Your task to perform on an android device: turn notification dots on Image 0: 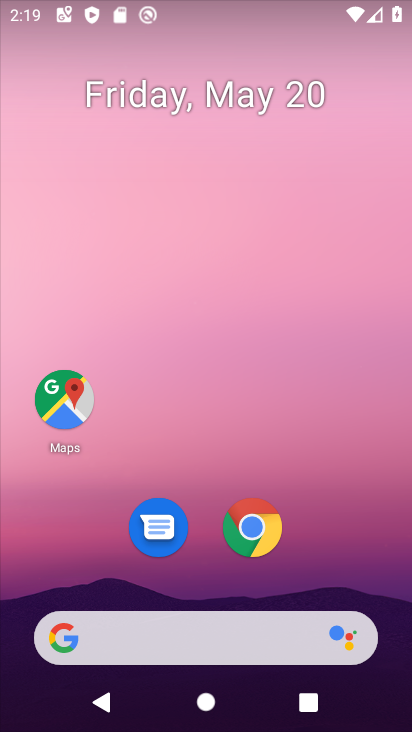
Step 0: drag from (264, 626) to (275, 200)
Your task to perform on an android device: turn notification dots on Image 1: 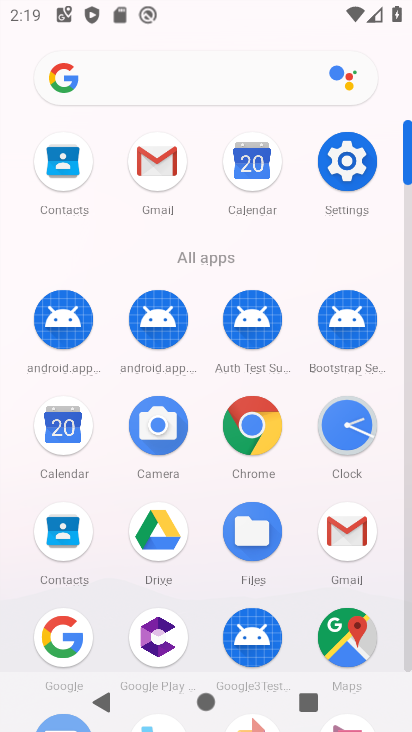
Step 1: click (332, 157)
Your task to perform on an android device: turn notification dots on Image 2: 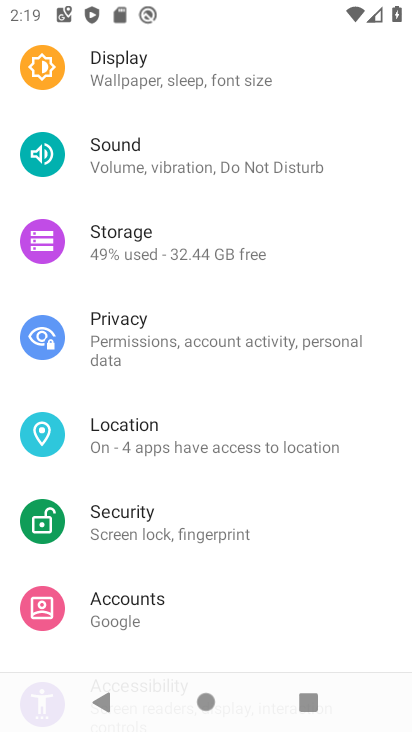
Step 2: drag from (294, 111) to (248, 453)
Your task to perform on an android device: turn notification dots on Image 3: 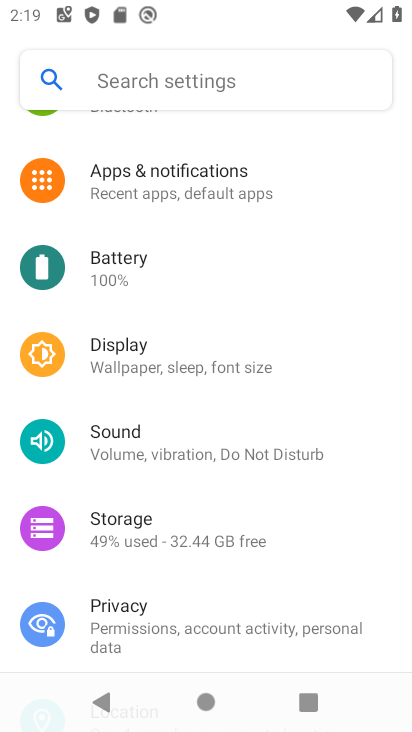
Step 3: click (244, 178)
Your task to perform on an android device: turn notification dots on Image 4: 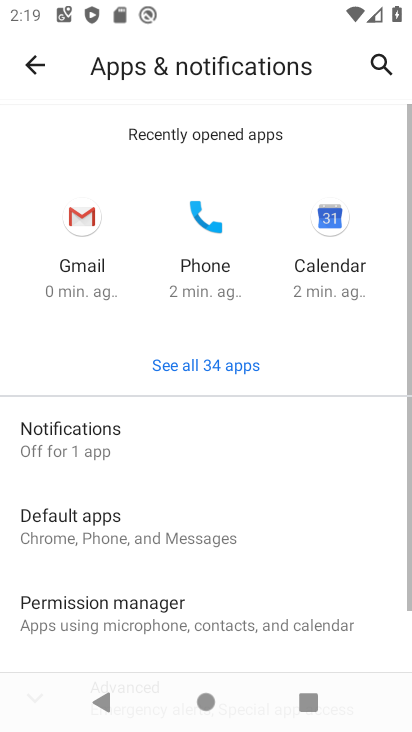
Step 4: drag from (306, 574) to (238, 180)
Your task to perform on an android device: turn notification dots on Image 5: 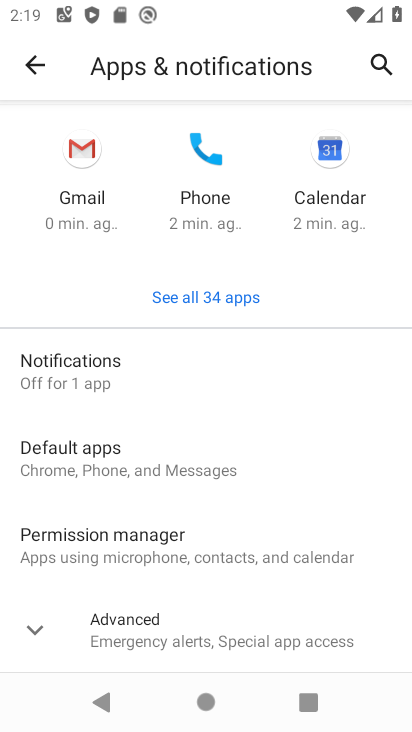
Step 5: click (150, 372)
Your task to perform on an android device: turn notification dots on Image 6: 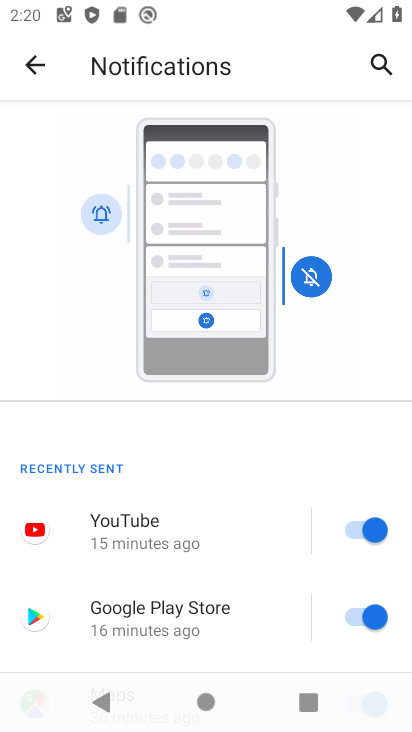
Step 6: drag from (206, 542) to (229, 233)
Your task to perform on an android device: turn notification dots on Image 7: 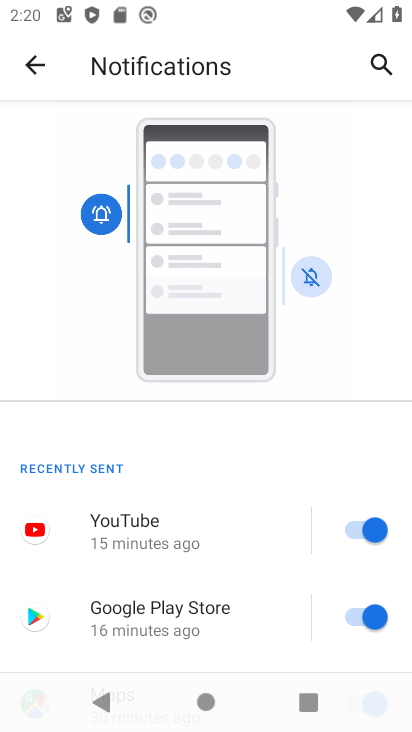
Step 7: drag from (216, 619) to (216, 238)
Your task to perform on an android device: turn notification dots on Image 8: 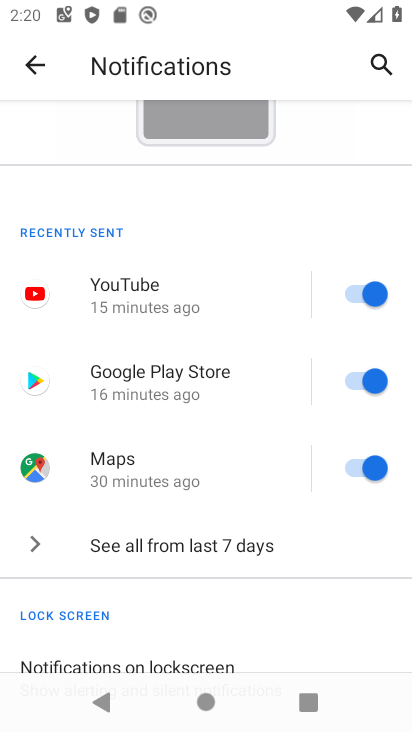
Step 8: drag from (272, 637) to (302, 53)
Your task to perform on an android device: turn notification dots on Image 9: 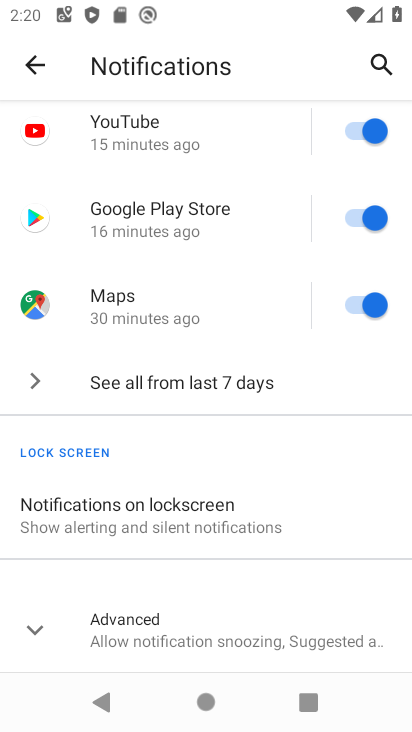
Step 9: click (208, 631)
Your task to perform on an android device: turn notification dots on Image 10: 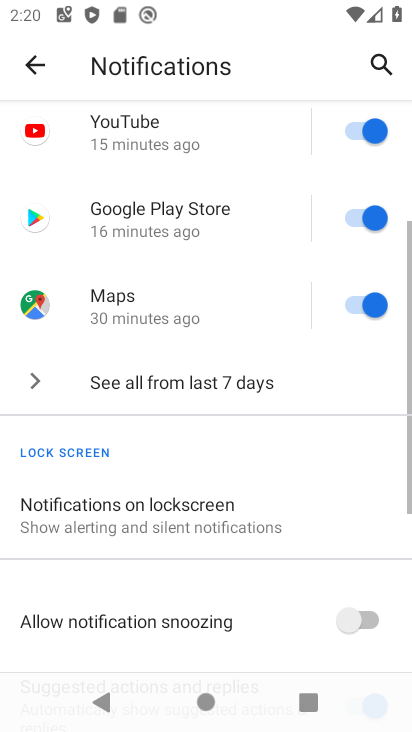
Step 10: task complete